Your task to perform on an android device: snooze an email in the gmail app Image 0: 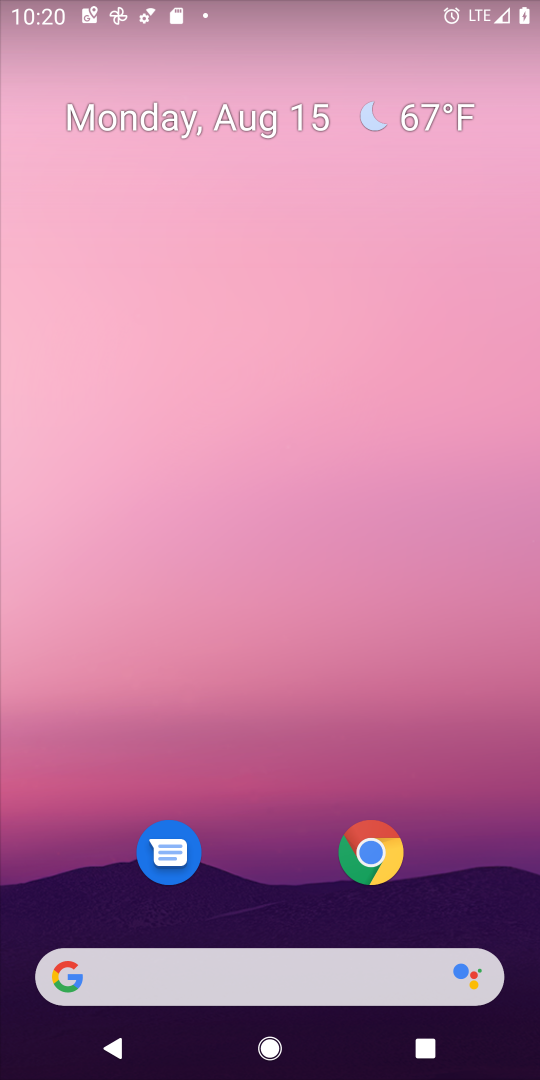
Step 0: drag from (219, 972) to (334, 72)
Your task to perform on an android device: snooze an email in the gmail app Image 1: 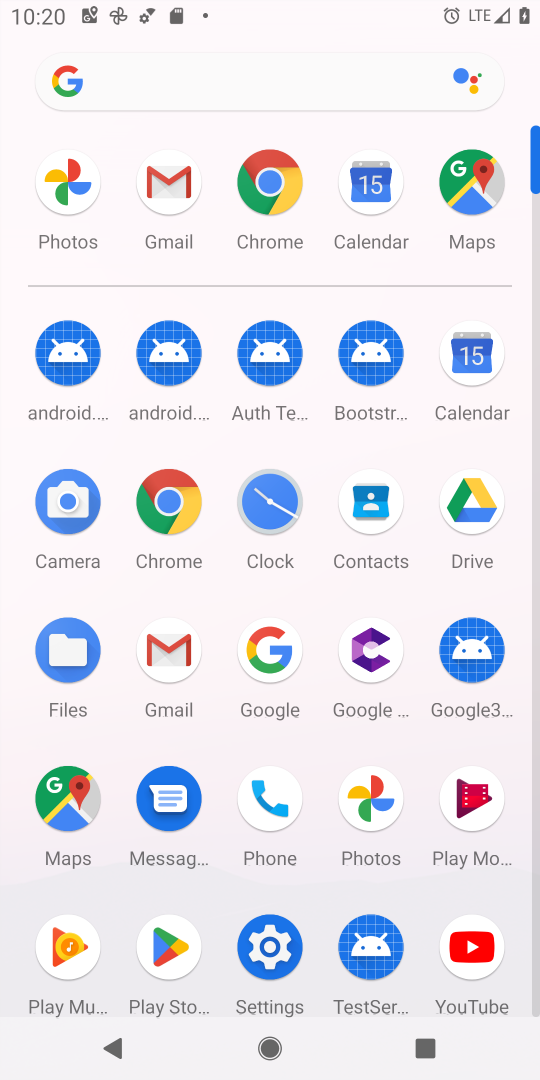
Step 1: click (170, 184)
Your task to perform on an android device: snooze an email in the gmail app Image 2: 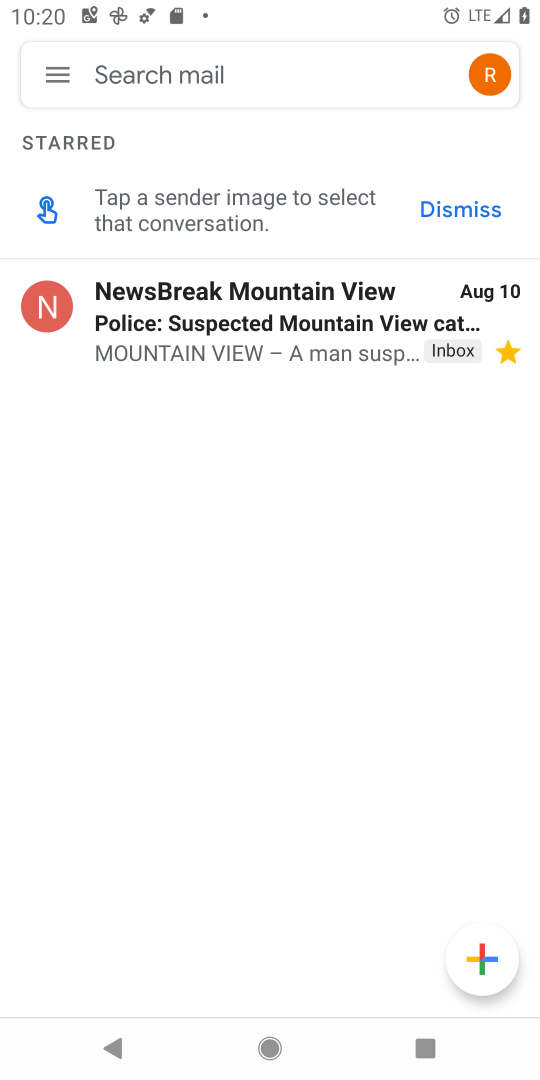
Step 2: click (49, 79)
Your task to perform on an android device: snooze an email in the gmail app Image 3: 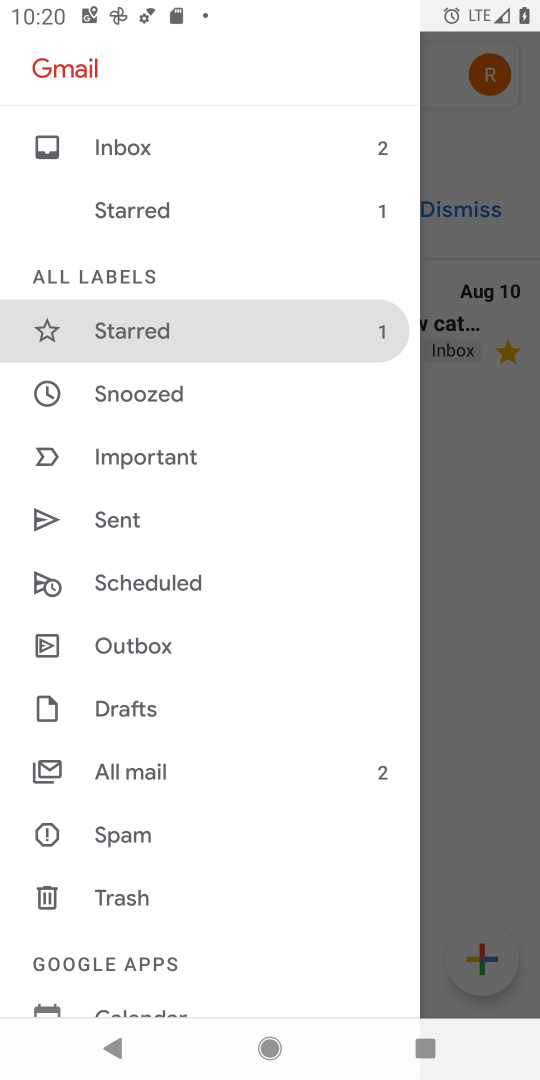
Step 3: click (99, 155)
Your task to perform on an android device: snooze an email in the gmail app Image 4: 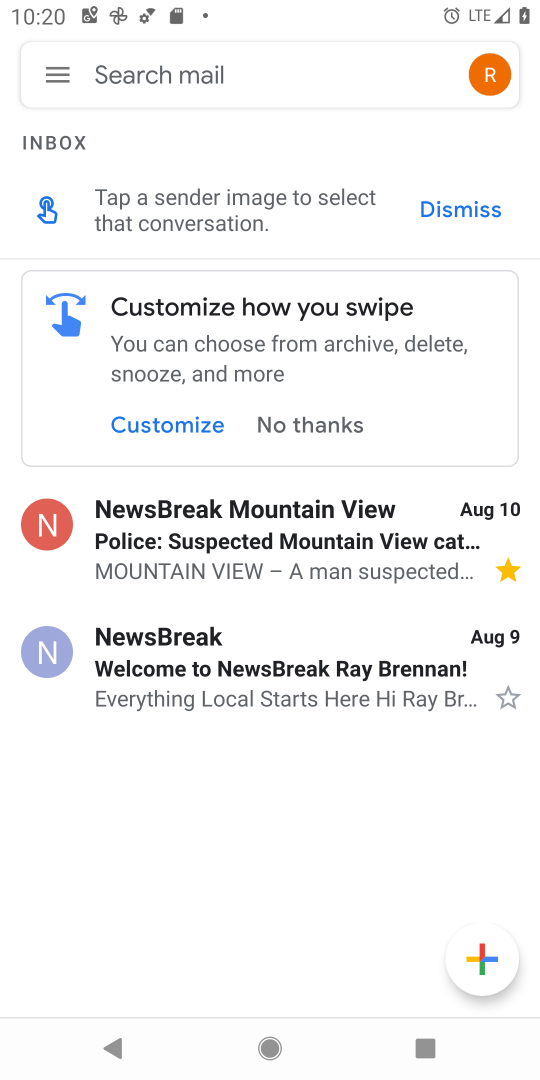
Step 4: click (326, 557)
Your task to perform on an android device: snooze an email in the gmail app Image 5: 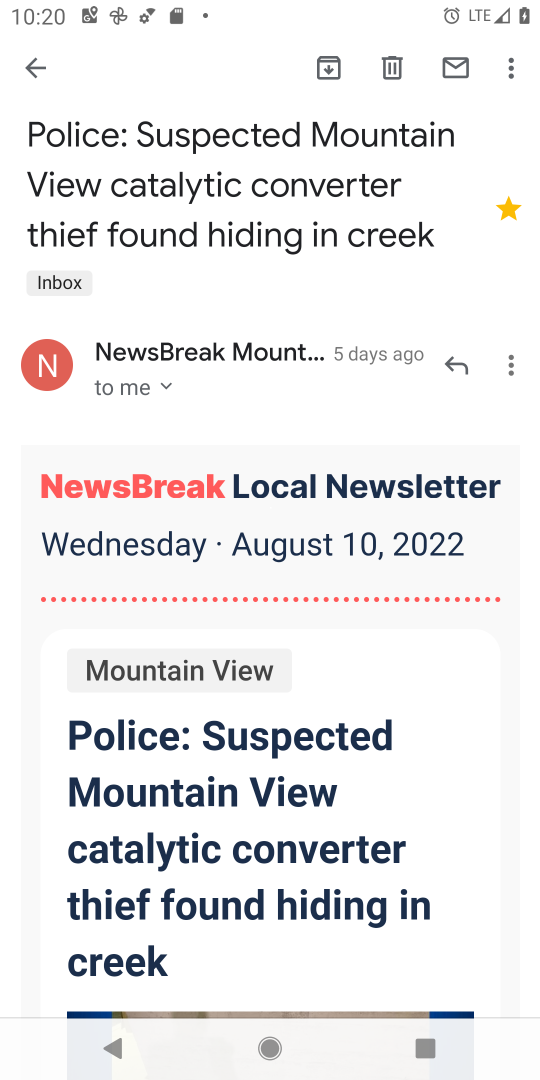
Step 5: click (508, 73)
Your task to perform on an android device: snooze an email in the gmail app Image 6: 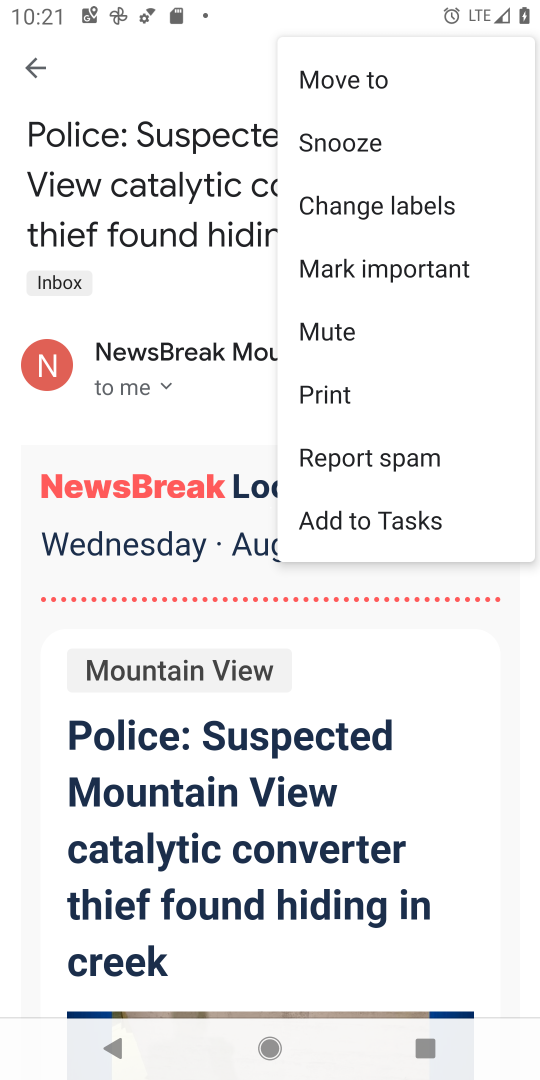
Step 6: click (361, 148)
Your task to perform on an android device: snooze an email in the gmail app Image 7: 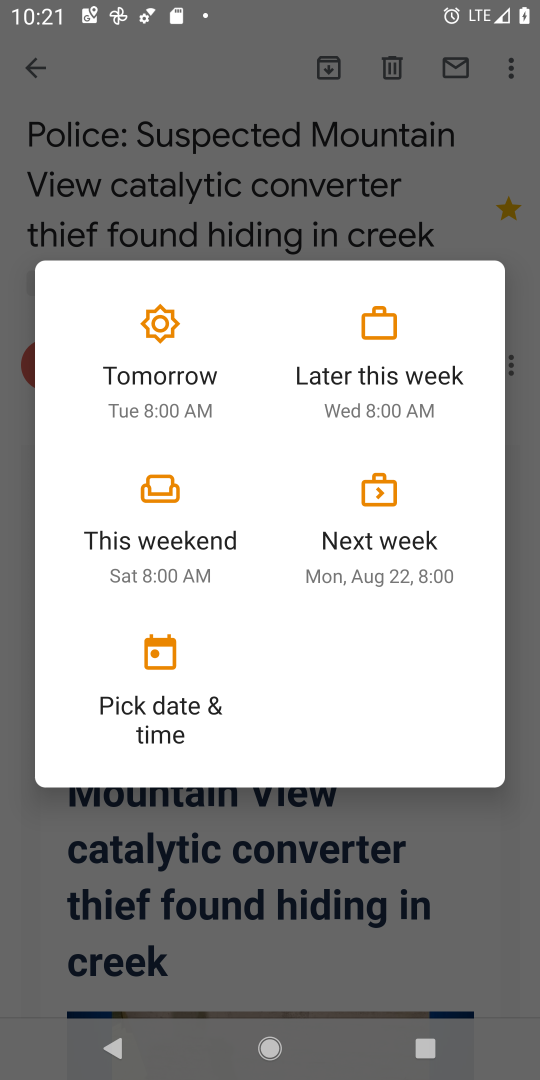
Step 7: click (168, 336)
Your task to perform on an android device: snooze an email in the gmail app Image 8: 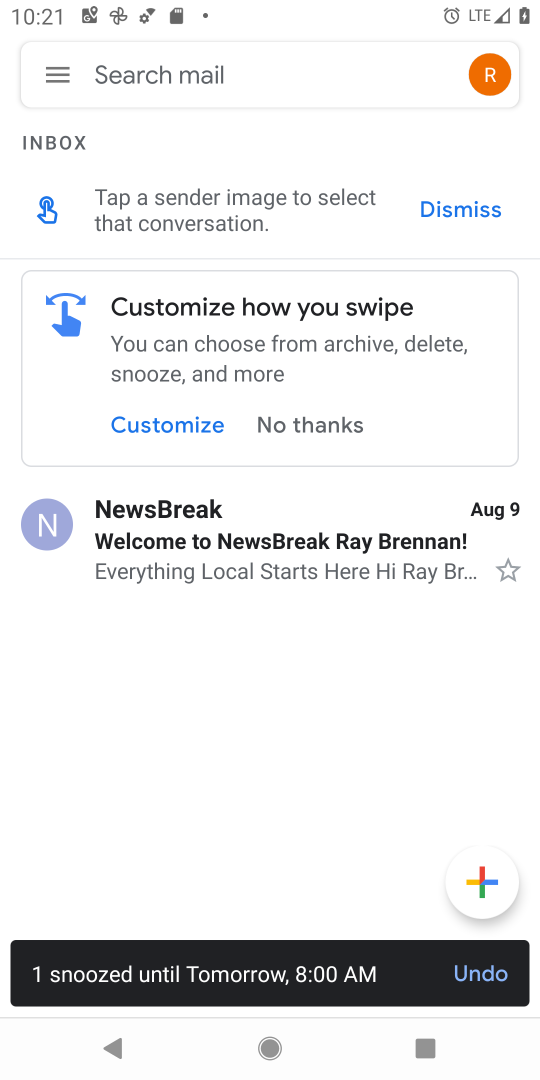
Step 8: task complete